Your task to perform on an android device: Go to battery settings Image 0: 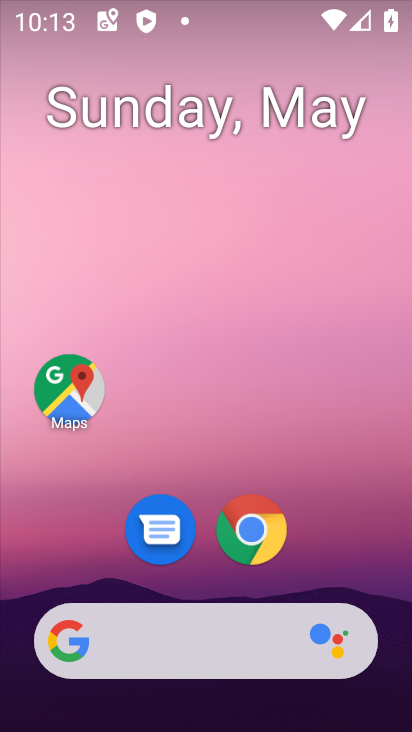
Step 0: drag from (233, 651) to (182, 87)
Your task to perform on an android device: Go to battery settings Image 1: 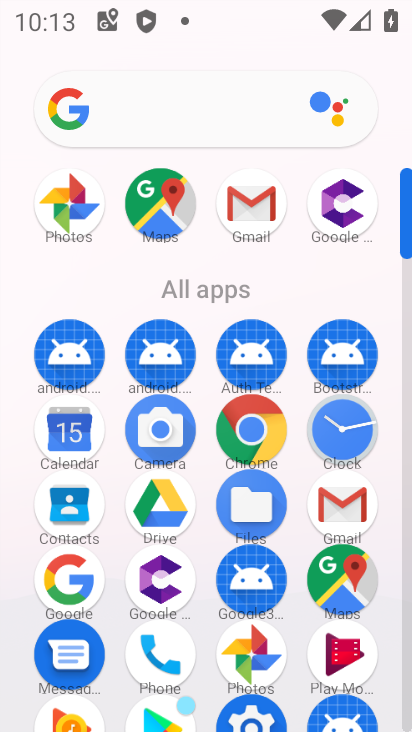
Step 1: click (271, 712)
Your task to perform on an android device: Go to battery settings Image 2: 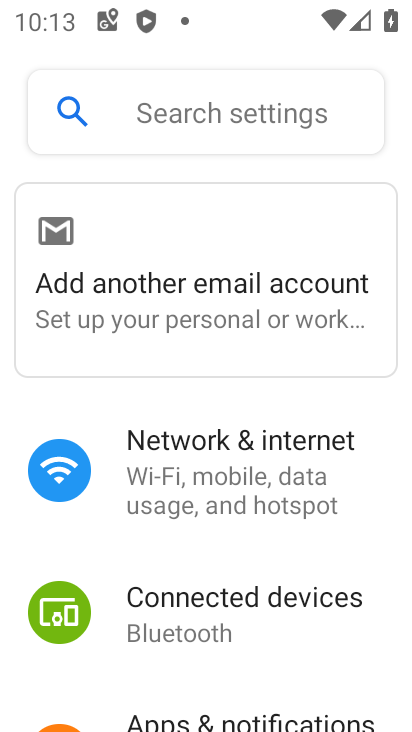
Step 2: drag from (258, 593) to (109, 33)
Your task to perform on an android device: Go to battery settings Image 3: 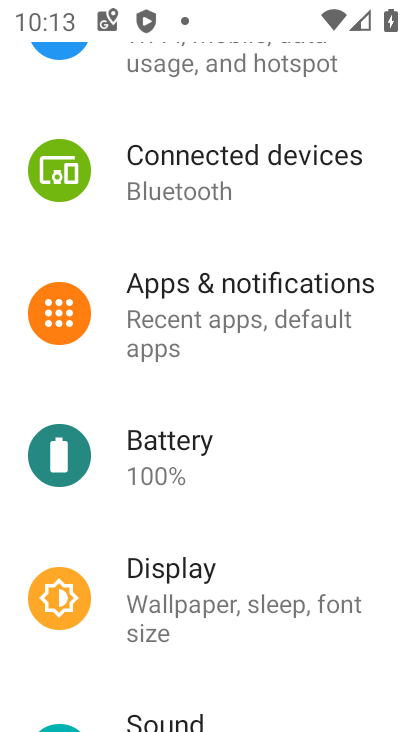
Step 3: click (174, 442)
Your task to perform on an android device: Go to battery settings Image 4: 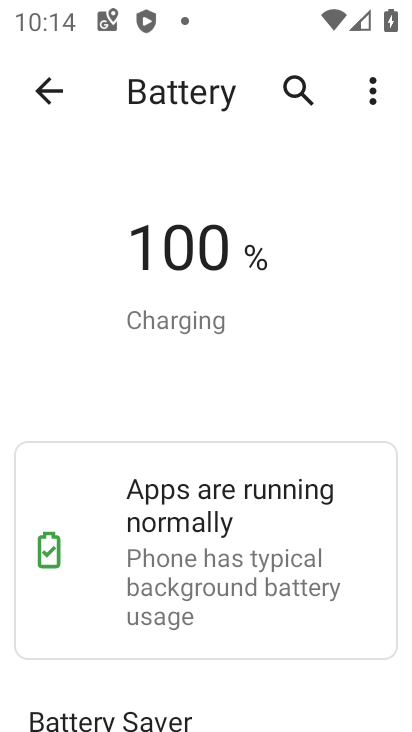
Step 4: task complete